Your task to perform on an android device: What's the weather going to be this weekend? Image 0: 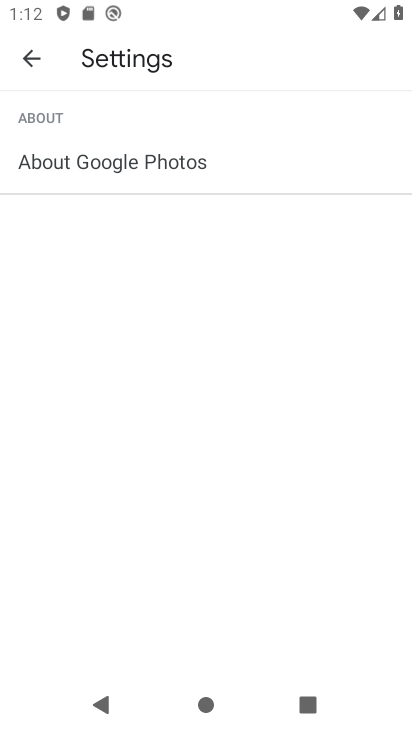
Step 0: press home button
Your task to perform on an android device: What's the weather going to be this weekend? Image 1: 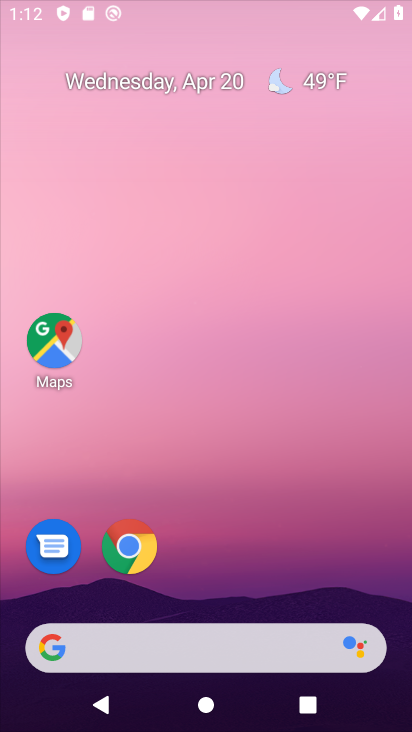
Step 1: drag from (225, 580) to (232, 273)
Your task to perform on an android device: What's the weather going to be this weekend? Image 2: 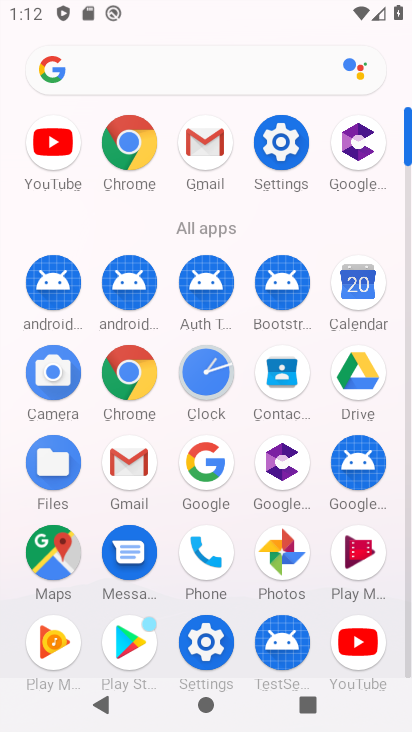
Step 2: click (127, 152)
Your task to perform on an android device: What's the weather going to be this weekend? Image 3: 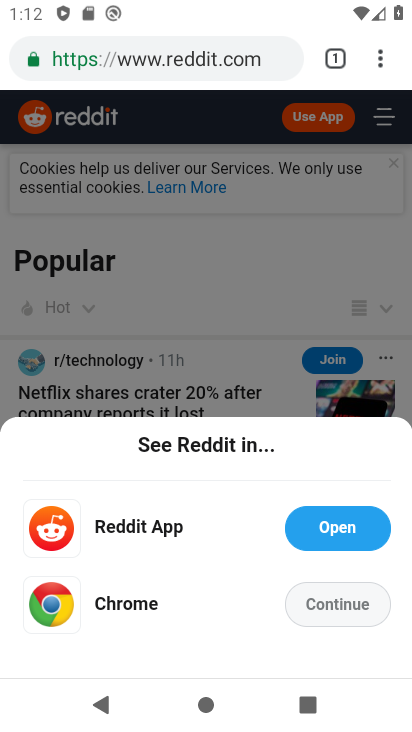
Step 3: click (369, 60)
Your task to perform on an android device: What's the weather going to be this weekend? Image 4: 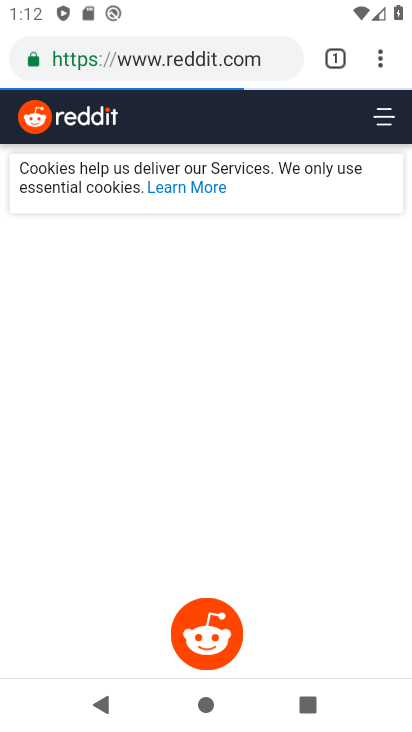
Step 4: click (359, 61)
Your task to perform on an android device: What's the weather going to be this weekend? Image 5: 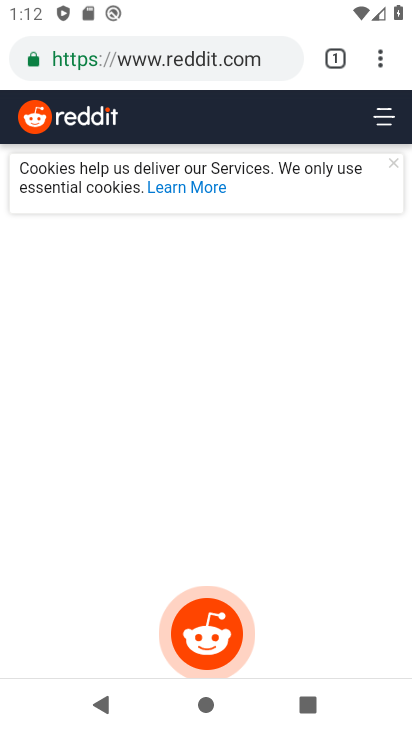
Step 5: click (371, 46)
Your task to perform on an android device: What's the weather going to be this weekend? Image 6: 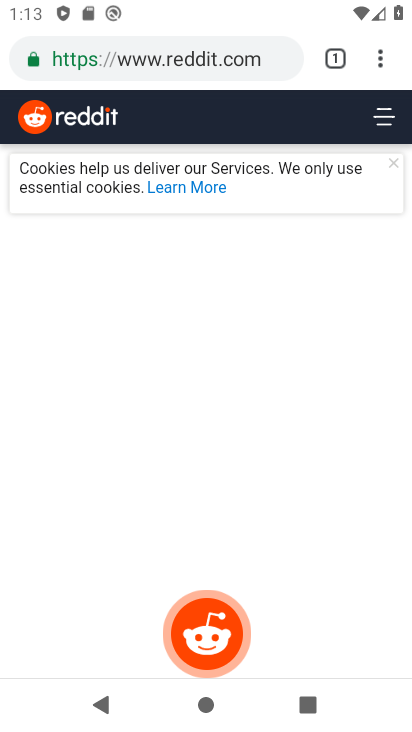
Step 6: click (369, 57)
Your task to perform on an android device: What's the weather going to be this weekend? Image 7: 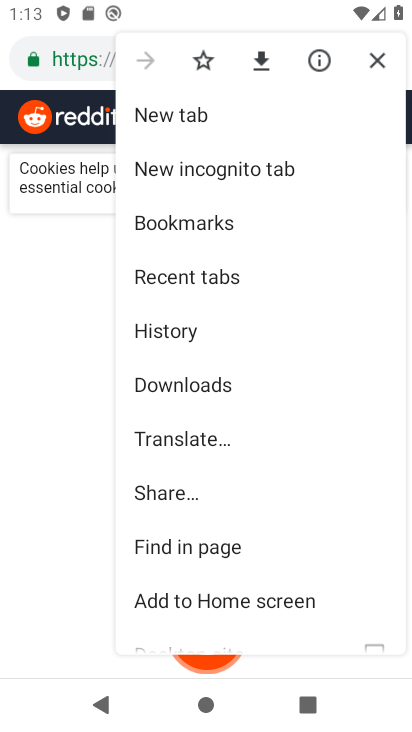
Step 7: click (214, 105)
Your task to perform on an android device: What's the weather going to be this weekend? Image 8: 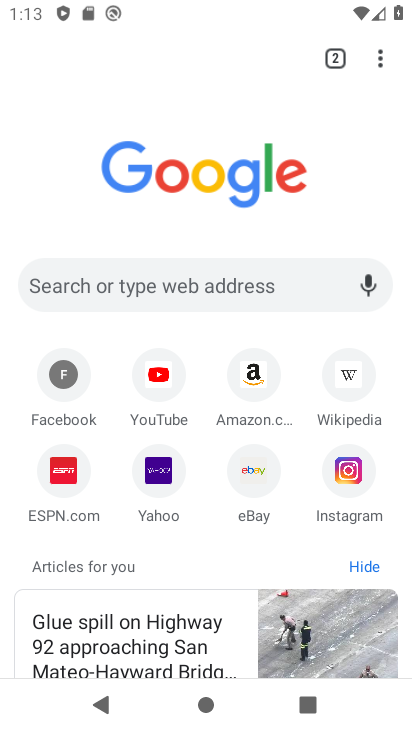
Step 8: click (214, 274)
Your task to perform on an android device: What's the weather going to be this weekend? Image 9: 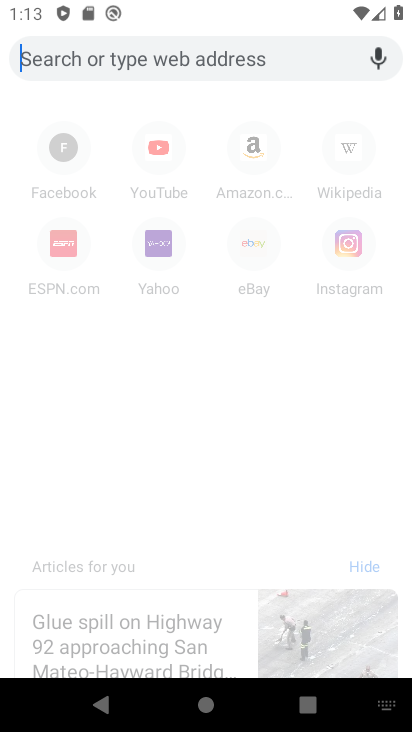
Step 9: type "What's the weather going to be this weekend?"
Your task to perform on an android device: What's the weather going to be this weekend? Image 10: 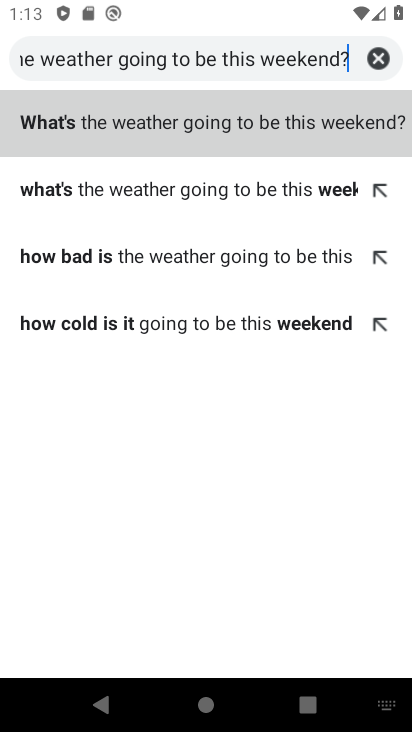
Step 10: click (352, 128)
Your task to perform on an android device: What's the weather going to be this weekend? Image 11: 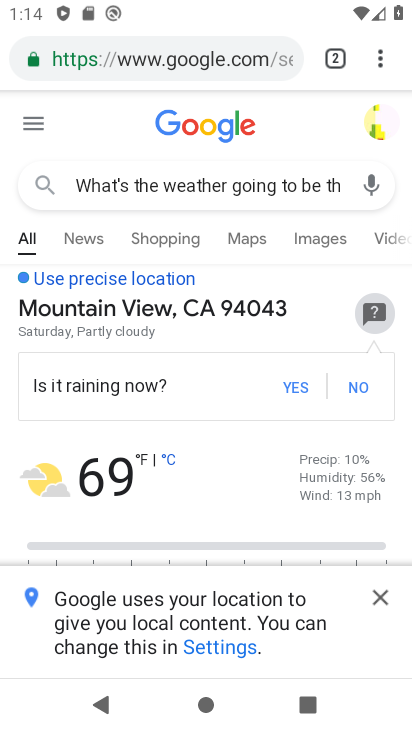
Step 11: task complete